Your task to perform on an android device: turn off location history Image 0: 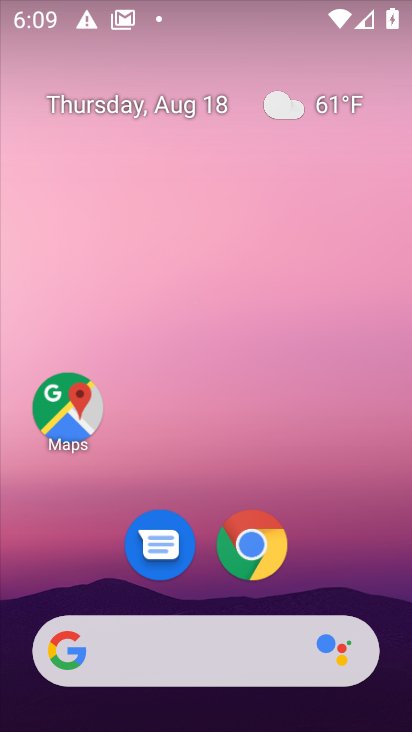
Step 0: drag from (337, 559) to (219, 39)
Your task to perform on an android device: turn off location history Image 1: 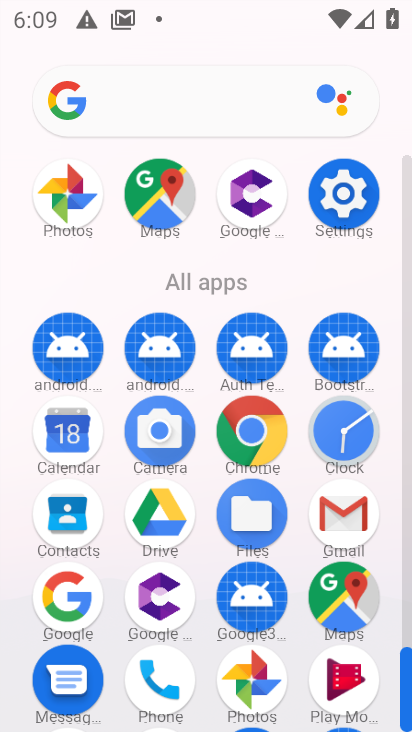
Step 1: click (344, 189)
Your task to perform on an android device: turn off location history Image 2: 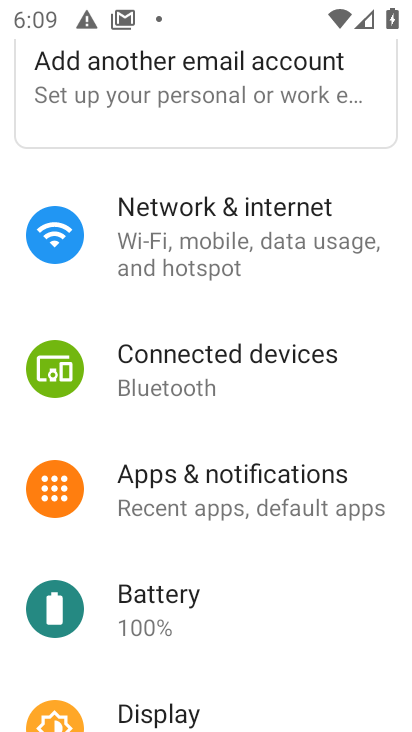
Step 2: drag from (253, 568) to (243, 404)
Your task to perform on an android device: turn off location history Image 3: 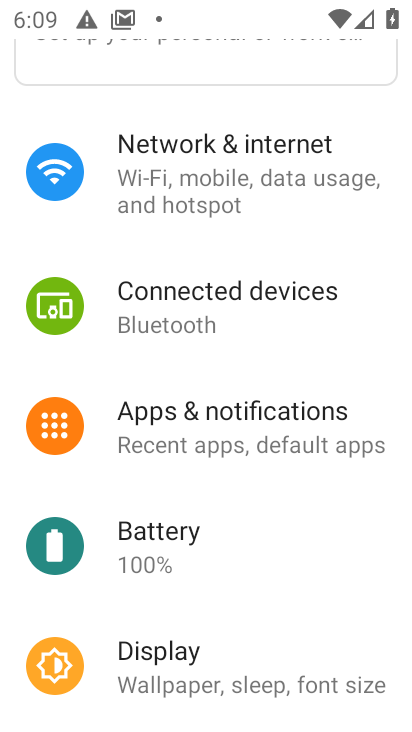
Step 3: drag from (256, 549) to (231, 331)
Your task to perform on an android device: turn off location history Image 4: 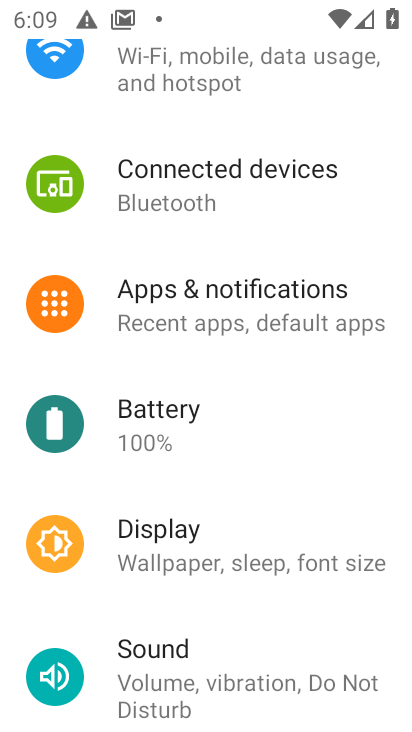
Step 4: drag from (247, 488) to (247, 252)
Your task to perform on an android device: turn off location history Image 5: 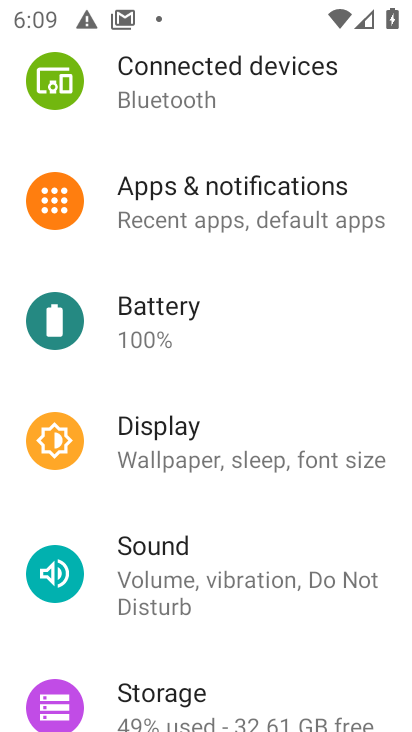
Step 5: drag from (281, 631) to (257, 364)
Your task to perform on an android device: turn off location history Image 6: 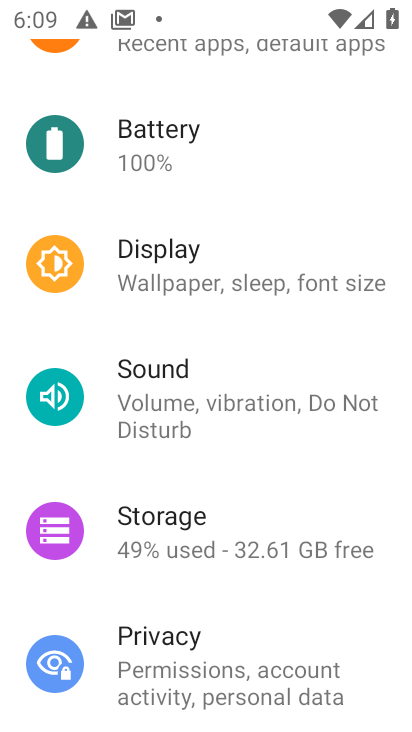
Step 6: drag from (251, 588) to (237, 338)
Your task to perform on an android device: turn off location history Image 7: 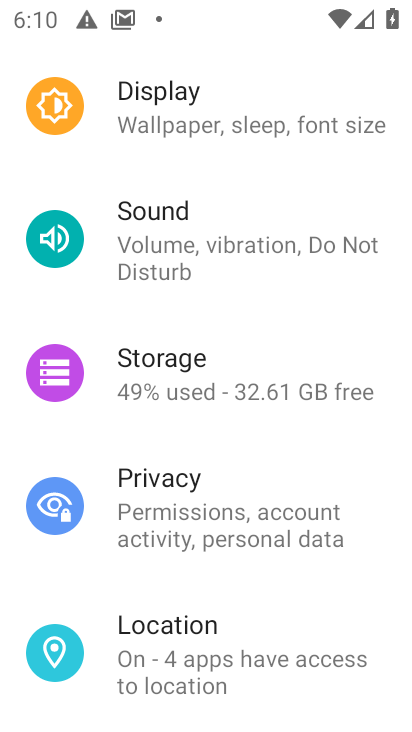
Step 7: click (163, 624)
Your task to perform on an android device: turn off location history Image 8: 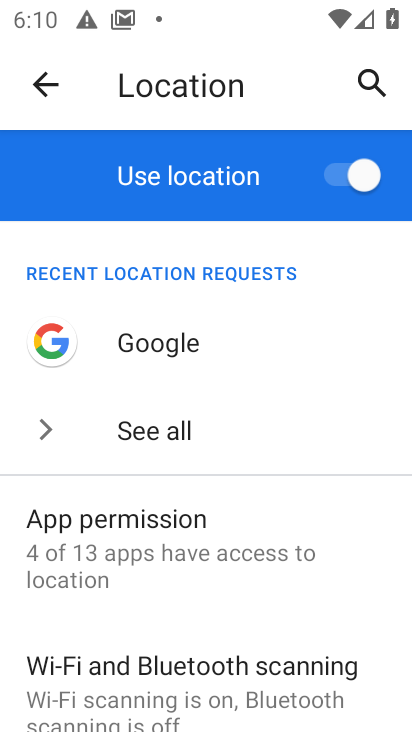
Step 8: drag from (242, 622) to (232, 387)
Your task to perform on an android device: turn off location history Image 9: 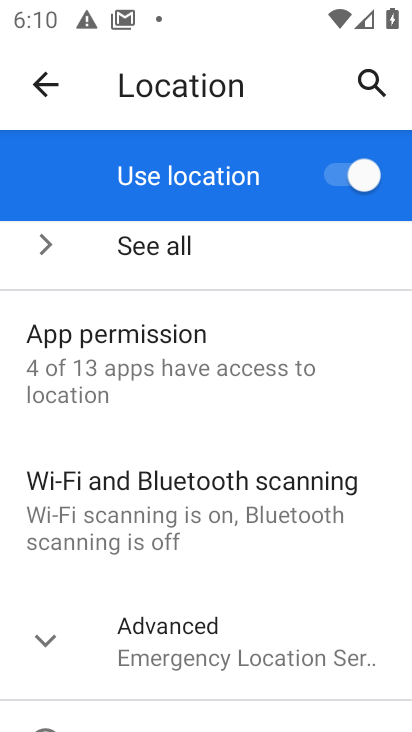
Step 9: click (52, 628)
Your task to perform on an android device: turn off location history Image 10: 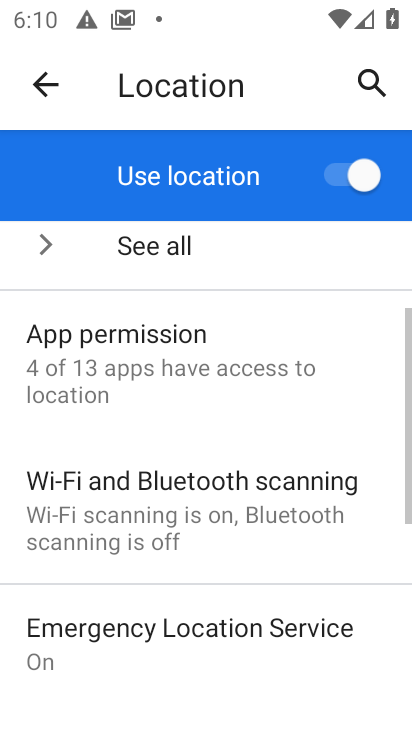
Step 10: drag from (216, 588) to (196, 205)
Your task to perform on an android device: turn off location history Image 11: 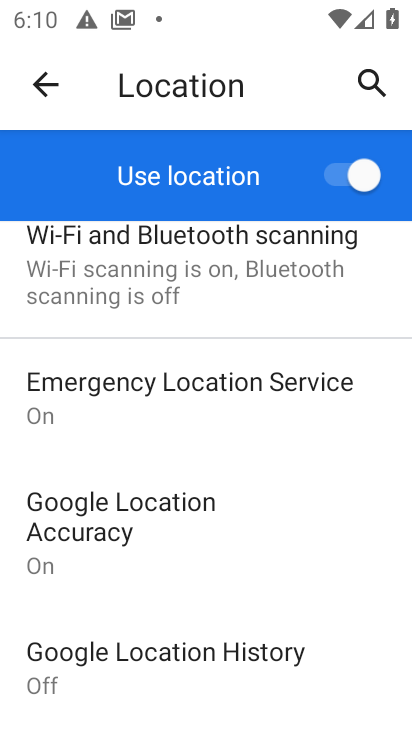
Step 11: drag from (210, 582) to (202, 411)
Your task to perform on an android device: turn off location history Image 12: 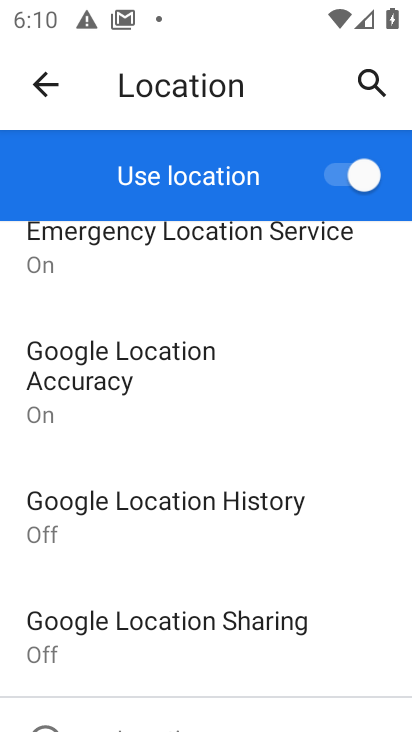
Step 12: drag from (208, 571) to (194, 393)
Your task to perform on an android device: turn off location history Image 13: 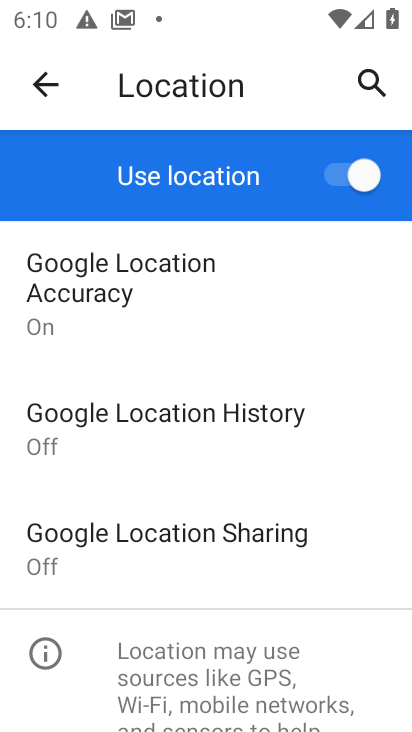
Step 13: click (185, 412)
Your task to perform on an android device: turn off location history Image 14: 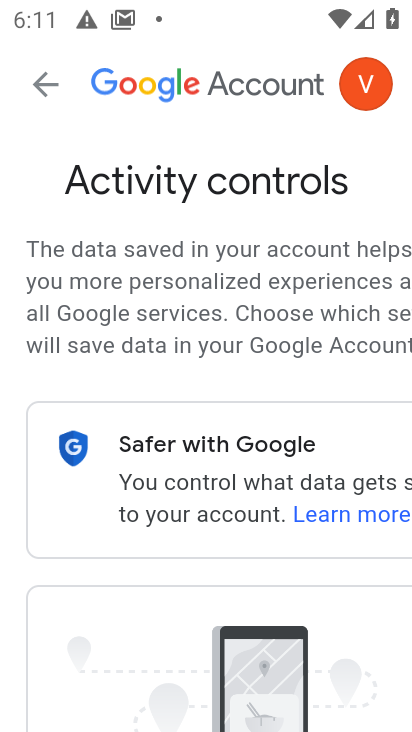
Step 14: drag from (238, 521) to (220, 315)
Your task to perform on an android device: turn off location history Image 15: 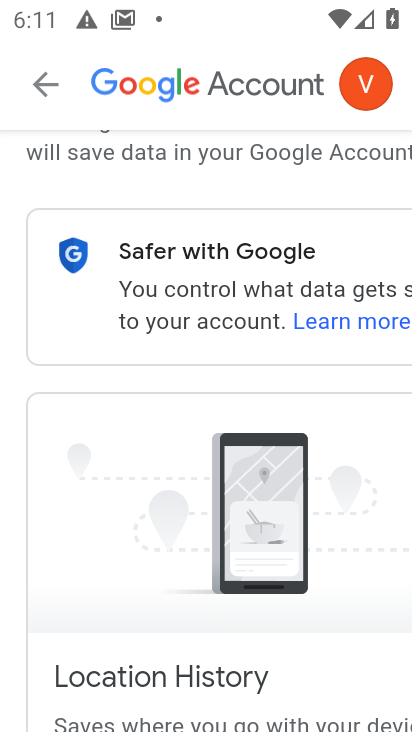
Step 15: drag from (272, 616) to (253, 390)
Your task to perform on an android device: turn off location history Image 16: 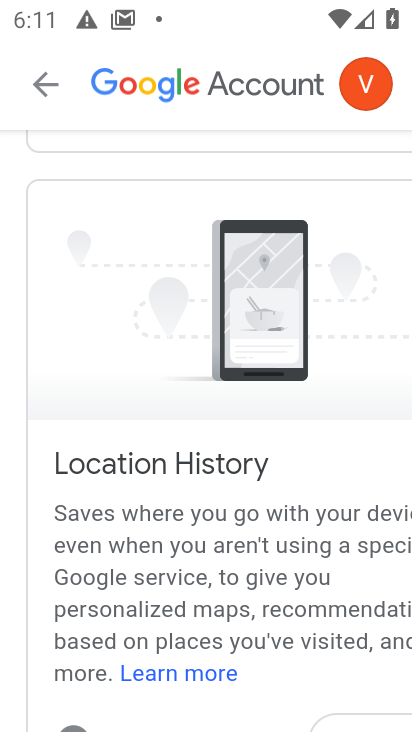
Step 16: drag from (246, 567) to (240, 309)
Your task to perform on an android device: turn off location history Image 17: 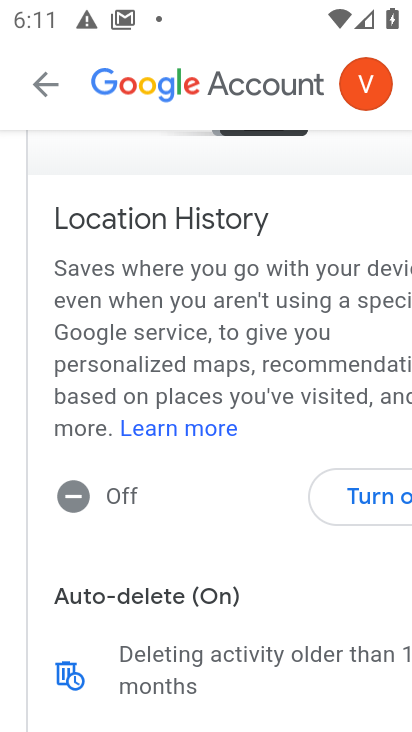
Step 17: click (227, 462)
Your task to perform on an android device: turn off location history Image 18: 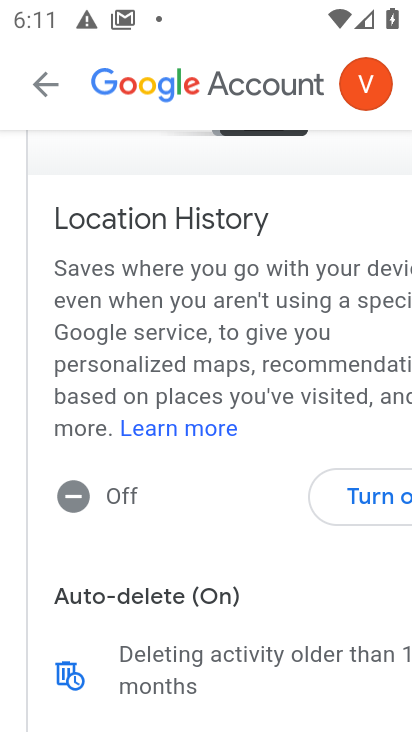
Step 18: task complete